Your task to perform on an android device: toggle notification dots Image 0: 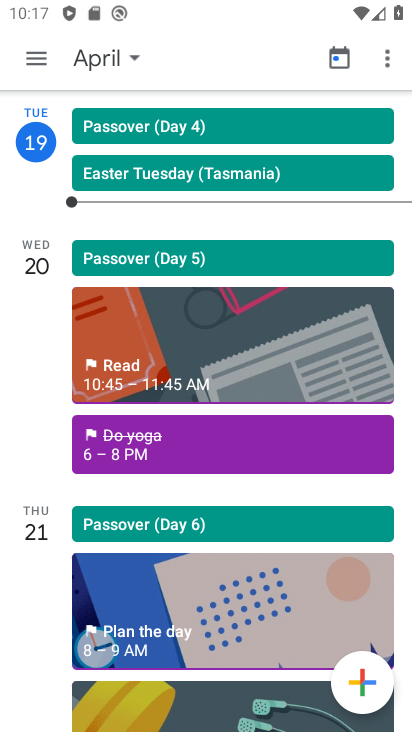
Step 0: press home button
Your task to perform on an android device: toggle notification dots Image 1: 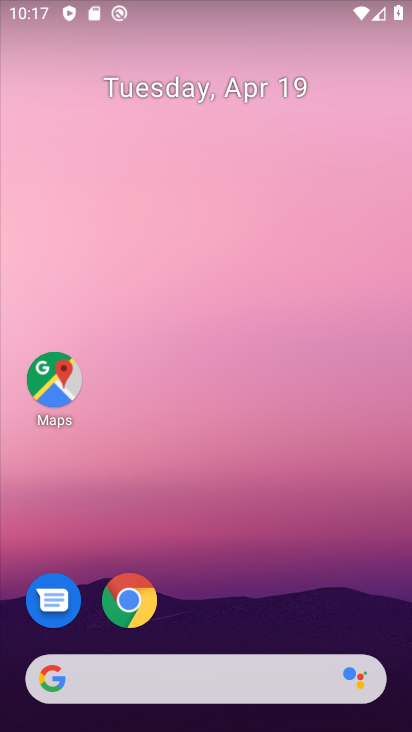
Step 1: drag from (204, 426) to (287, 5)
Your task to perform on an android device: toggle notification dots Image 2: 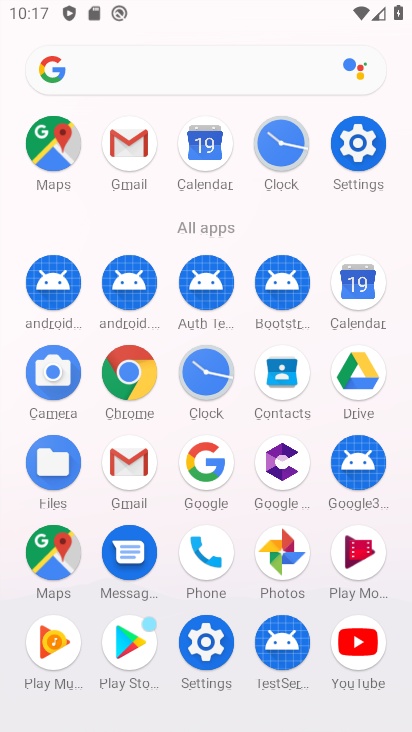
Step 2: click (366, 154)
Your task to perform on an android device: toggle notification dots Image 3: 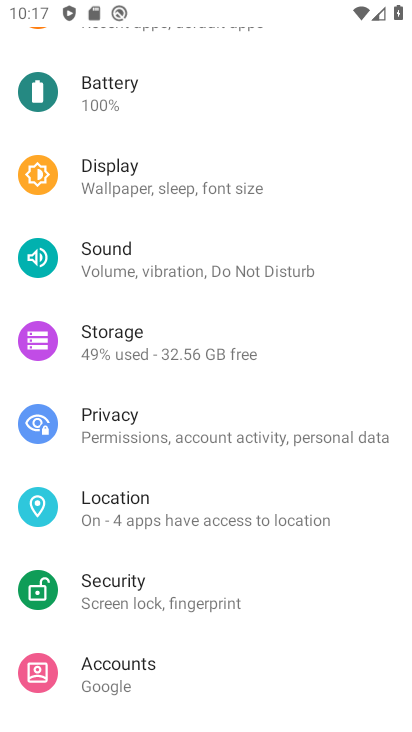
Step 3: drag from (167, 224) to (105, 726)
Your task to perform on an android device: toggle notification dots Image 4: 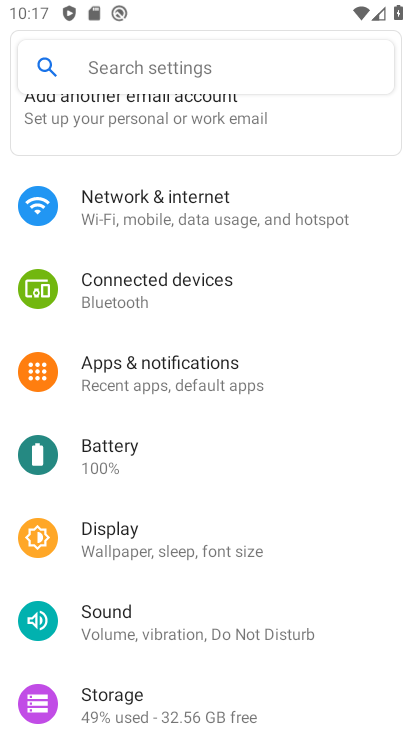
Step 4: click (176, 381)
Your task to perform on an android device: toggle notification dots Image 5: 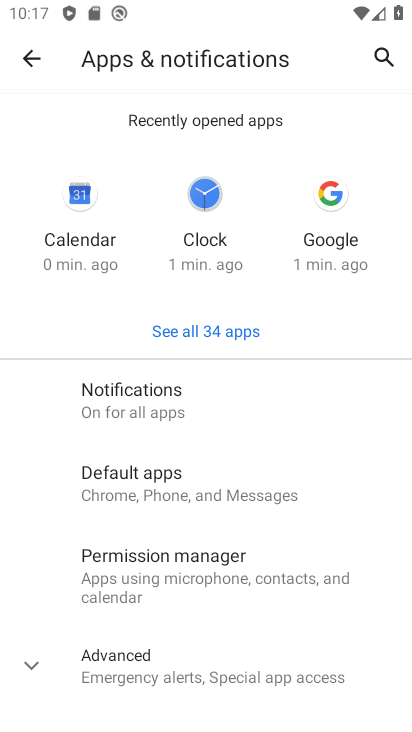
Step 5: click (171, 409)
Your task to perform on an android device: toggle notification dots Image 6: 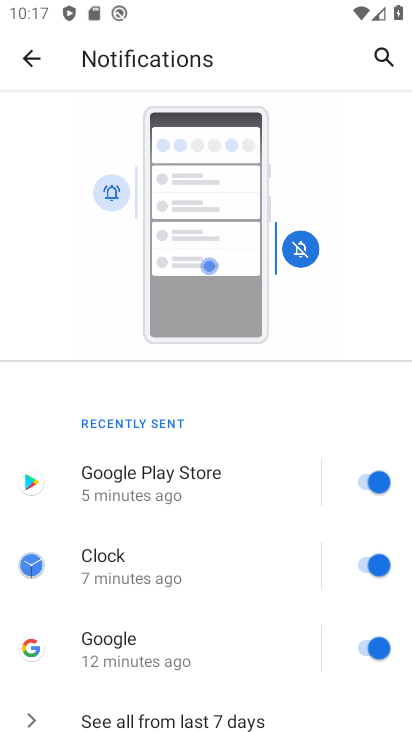
Step 6: drag from (219, 621) to (241, 116)
Your task to perform on an android device: toggle notification dots Image 7: 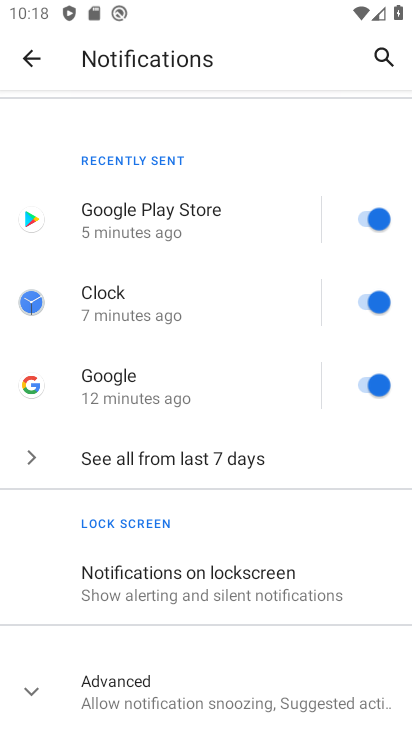
Step 7: click (156, 688)
Your task to perform on an android device: toggle notification dots Image 8: 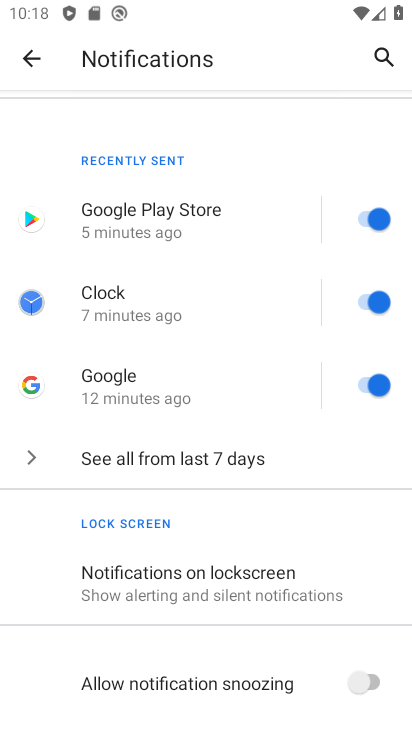
Step 8: drag from (185, 603) to (237, 247)
Your task to perform on an android device: toggle notification dots Image 9: 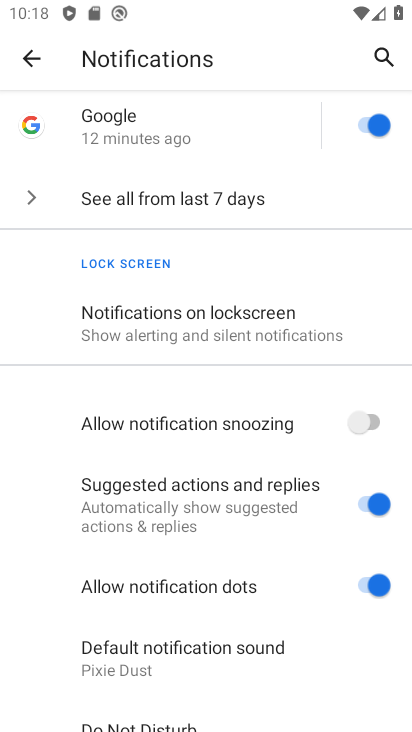
Step 9: click (370, 588)
Your task to perform on an android device: toggle notification dots Image 10: 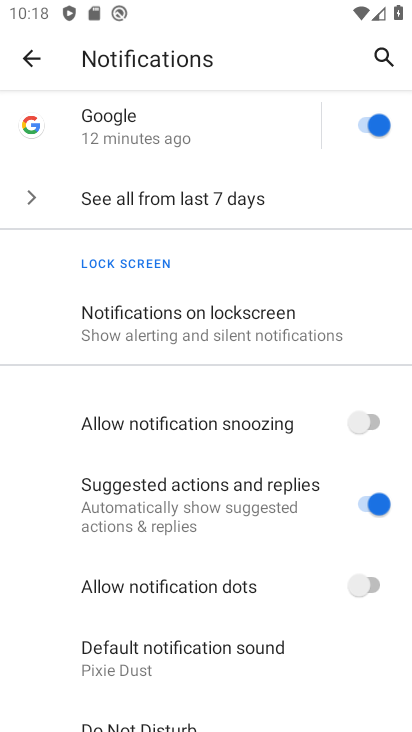
Step 10: task complete